Your task to perform on an android device: Open accessibility settings Image 0: 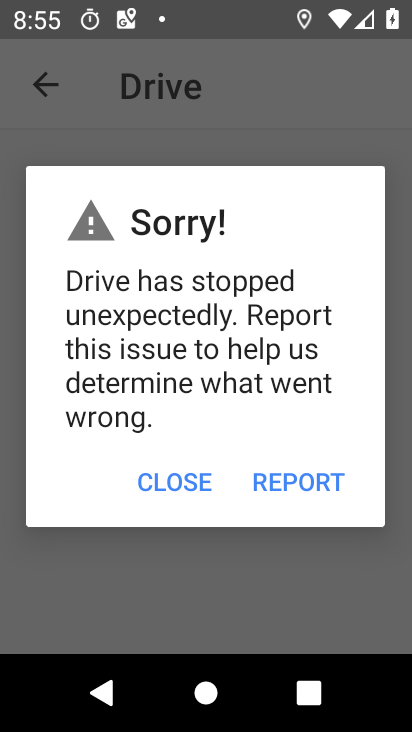
Step 0: press home button
Your task to perform on an android device: Open accessibility settings Image 1: 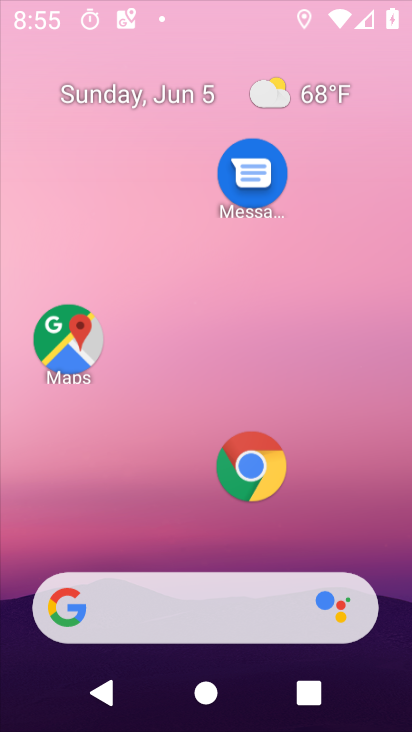
Step 1: drag from (206, 587) to (275, 32)
Your task to perform on an android device: Open accessibility settings Image 2: 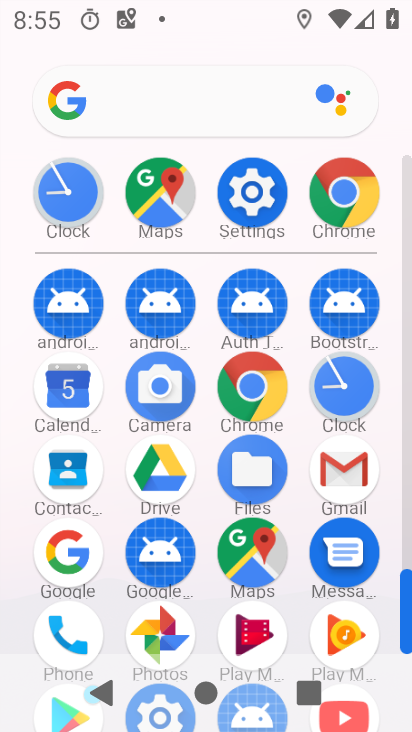
Step 2: click (253, 196)
Your task to perform on an android device: Open accessibility settings Image 3: 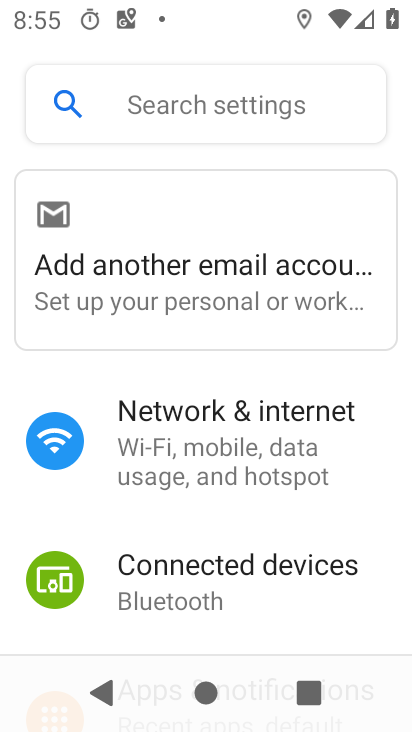
Step 3: drag from (193, 603) to (286, 8)
Your task to perform on an android device: Open accessibility settings Image 4: 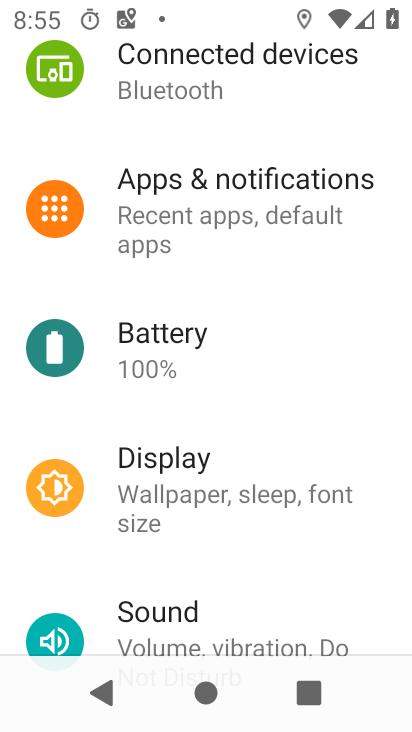
Step 4: drag from (220, 593) to (290, 58)
Your task to perform on an android device: Open accessibility settings Image 5: 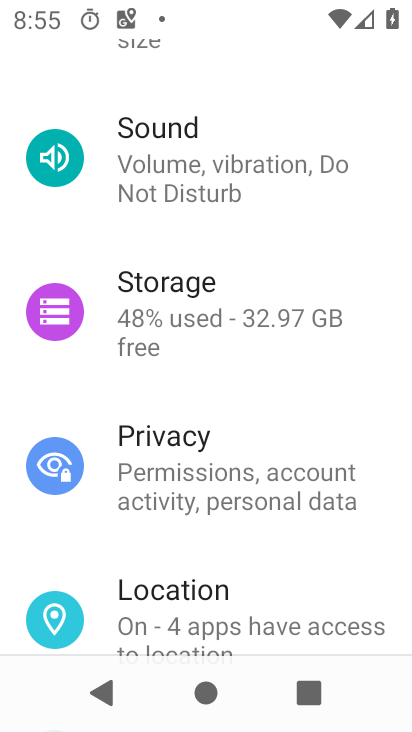
Step 5: drag from (187, 590) to (291, 62)
Your task to perform on an android device: Open accessibility settings Image 6: 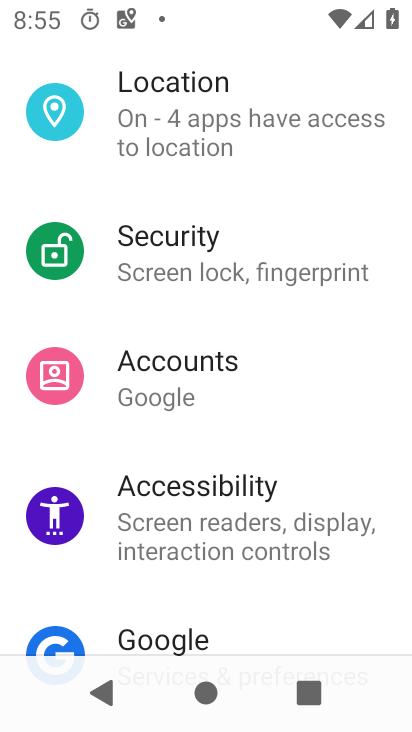
Step 6: click (234, 507)
Your task to perform on an android device: Open accessibility settings Image 7: 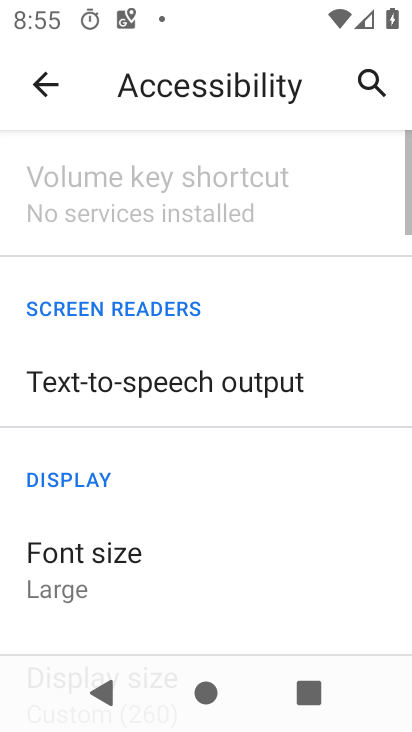
Step 7: task complete